Your task to perform on an android device: Check the news Image 0: 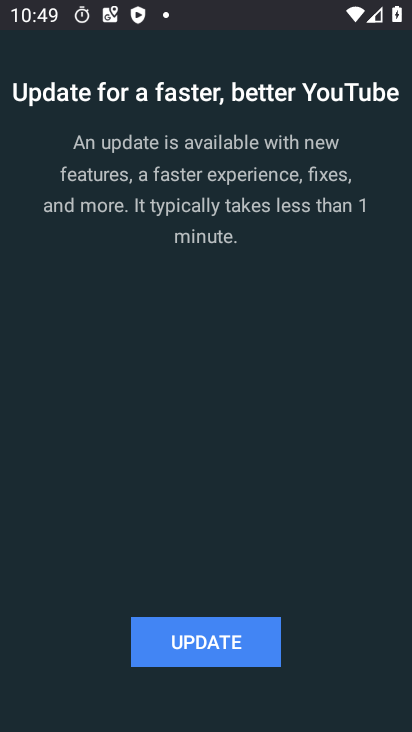
Step 0: press back button
Your task to perform on an android device: Check the news Image 1: 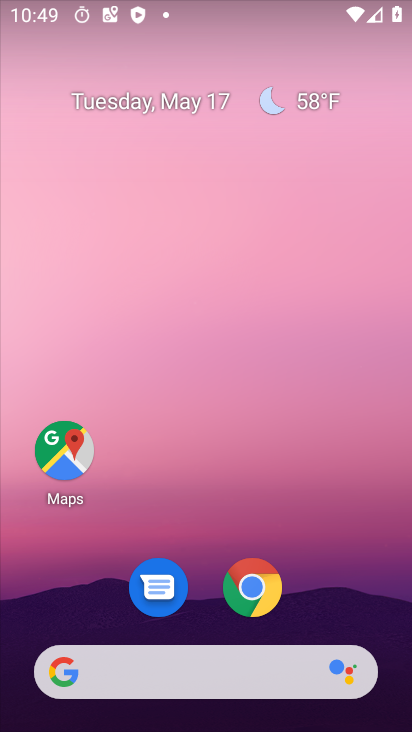
Step 1: drag from (328, 589) to (312, 156)
Your task to perform on an android device: Check the news Image 2: 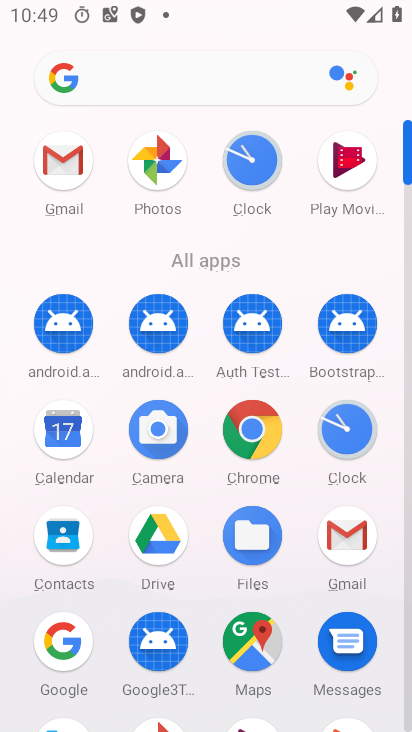
Step 2: click (59, 639)
Your task to perform on an android device: Check the news Image 3: 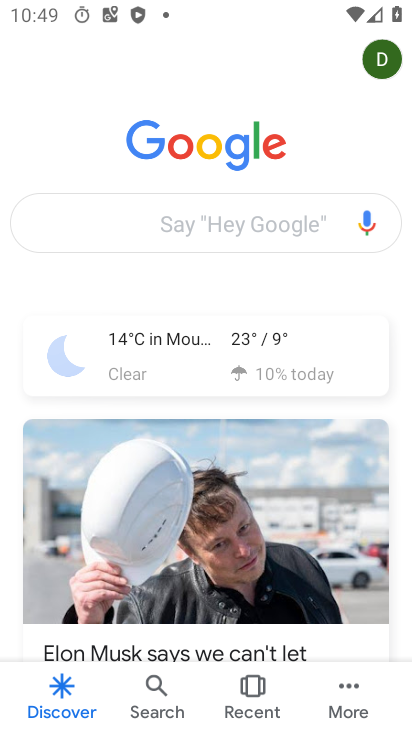
Step 3: click (164, 221)
Your task to perform on an android device: Check the news Image 4: 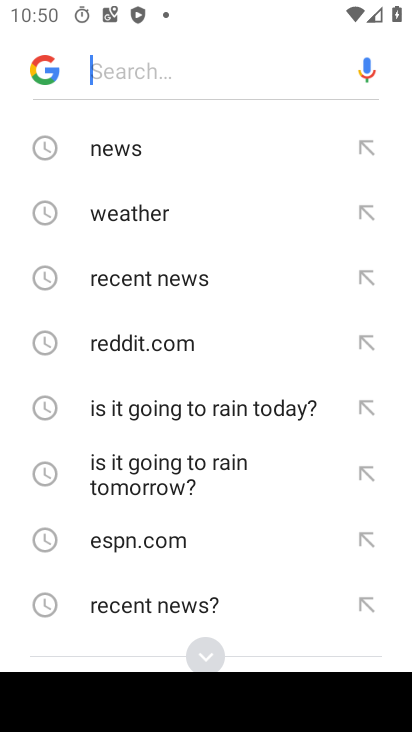
Step 4: type "news"
Your task to perform on an android device: Check the news Image 5: 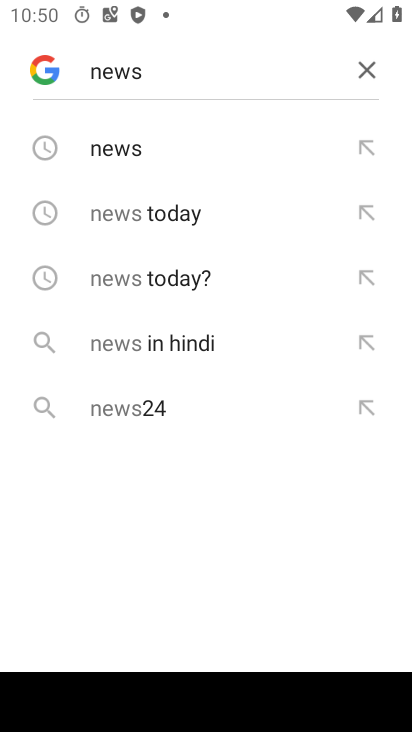
Step 5: click (108, 147)
Your task to perform on an android device: Check the news Image 6: 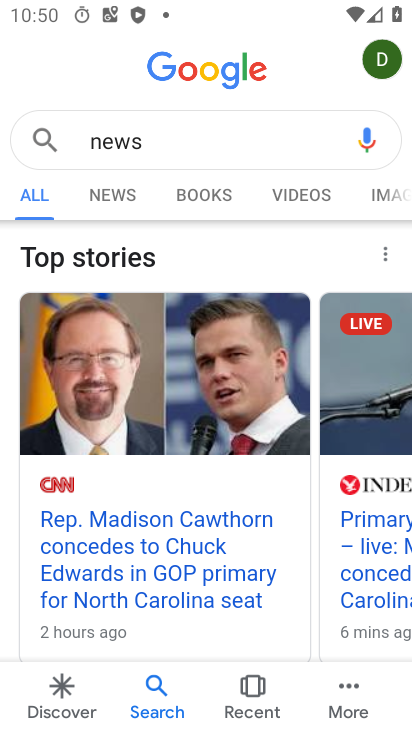
Step 6: task complete